Your task to perform on an android device: remove spam from my inbox in the gmail app Image 0: 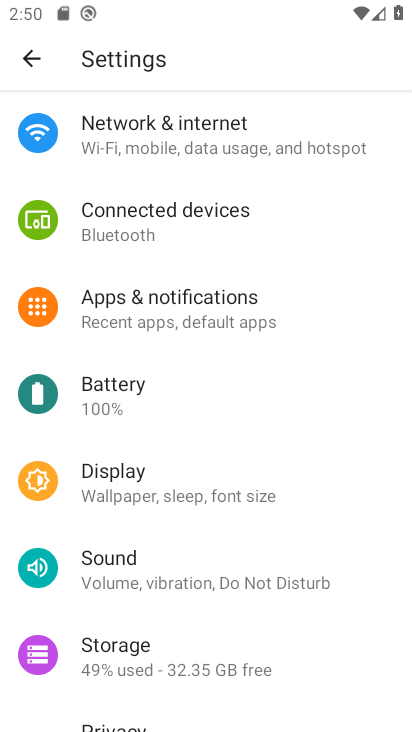
Step 0: press home button
Your task to perform on an android device: remove spam from my inbox in the gmail app Image 1: 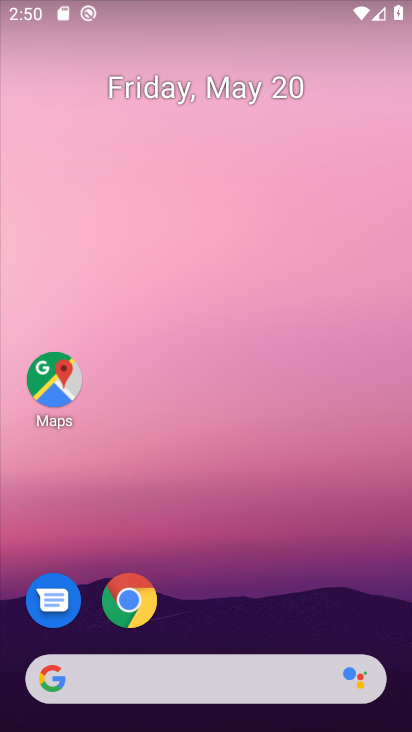
Step 1: drag from (371, 570) to (372, 252)
Your task to perform on an android device: remove spam from my inbox in the gmail app Image 2: 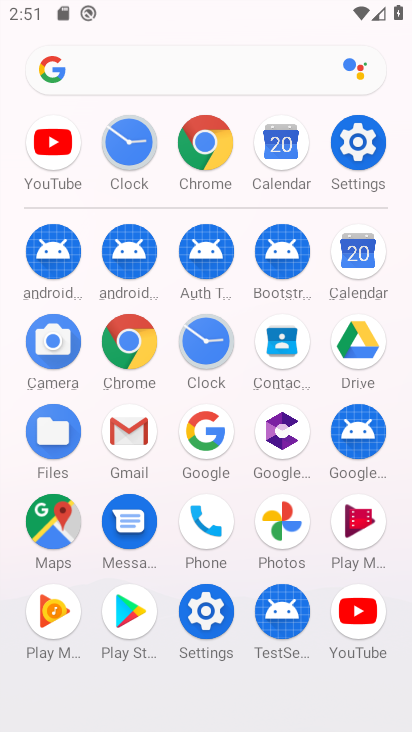
Step 2: click (136, 437)
Your task to perform on an android device: remove spam from my inbox in the gmail app Image 3: 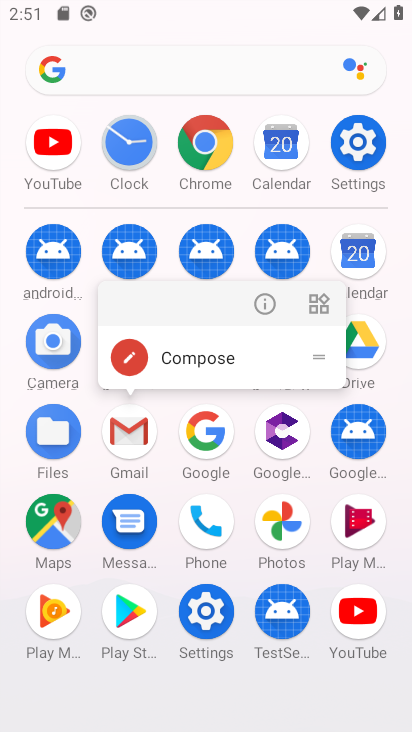
Step 3: click (136, 437)
Your task to perform on an android device: remove spam from my inbox in the gmail app Image 4: 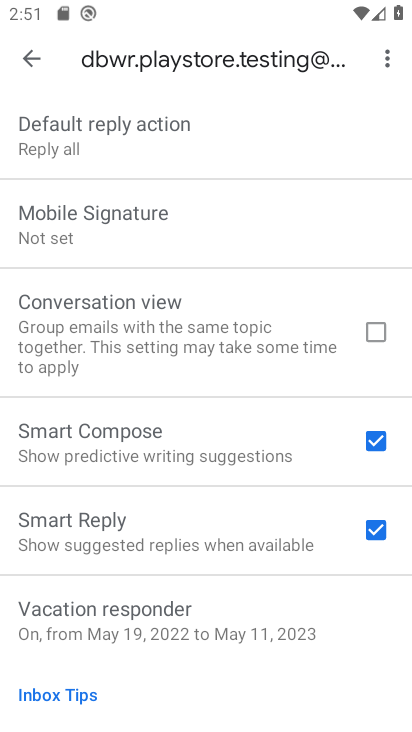
Step 4: drag from (273, 233) to (267, 349)
Your task to perform on an android device: remove spam from my inbox in the gmail app Image 5: 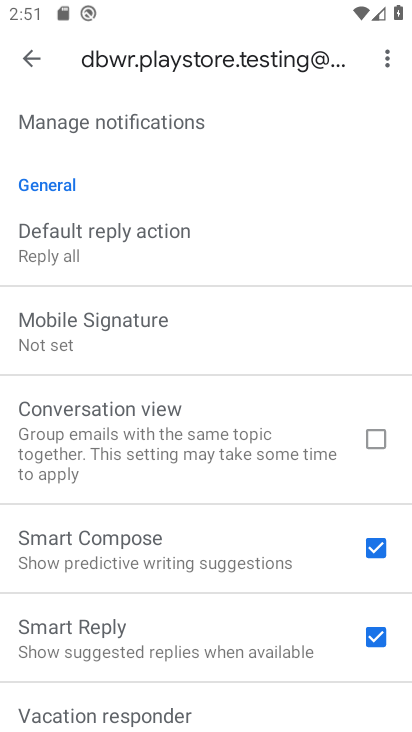
Step 5: drag from (271, 248) to (268, 338)
Your task to perform on an android device: remove spam from my inbox in the gmail app Image 6: 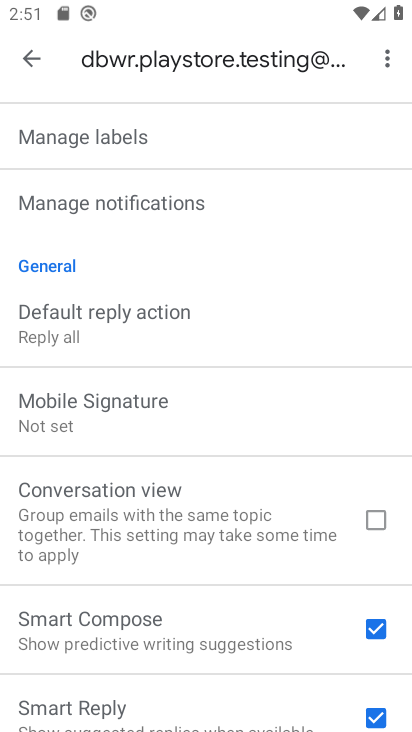
Step 6: drag from (279, 245) to (272, 350)
Your task to perform on an android device: remove spam from my inbox in the gmail app Image 7: 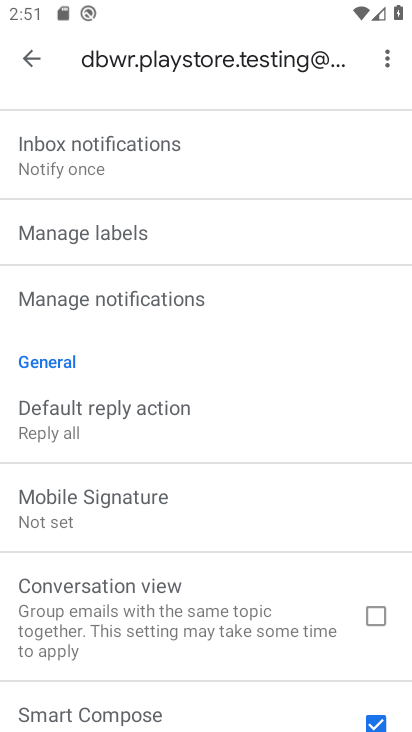
Step 7: drag from (270, 221) to (268, 300)
Your task to perform on an android device: remove spam from my inbox in the gmail app Image 8: 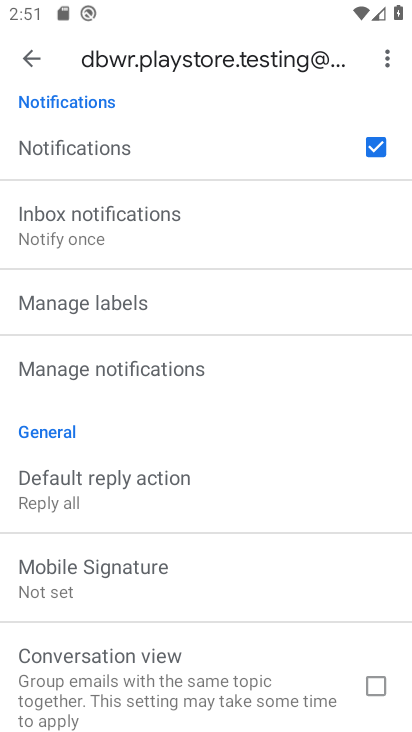
Step 8: drag from (275, 203) to (270, 293)
Your task to perform on an android device: remove spam from my inbox in the gmail app Image 9: 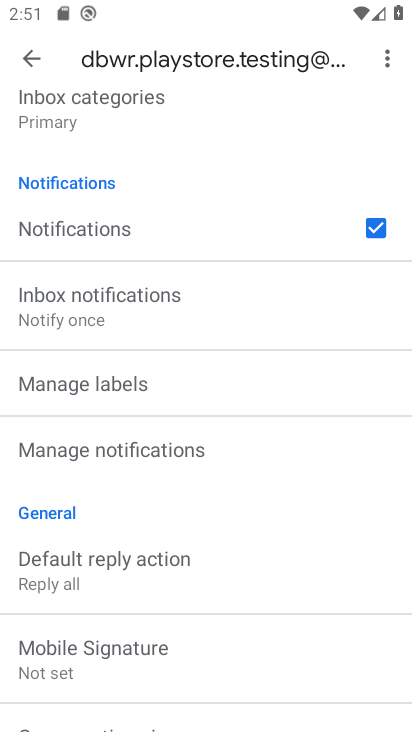
Step 9: drag from (262, 202) to (258, 301)
Your task to perform on an android device: remove spam from my inbox in the gmail app Image 10: 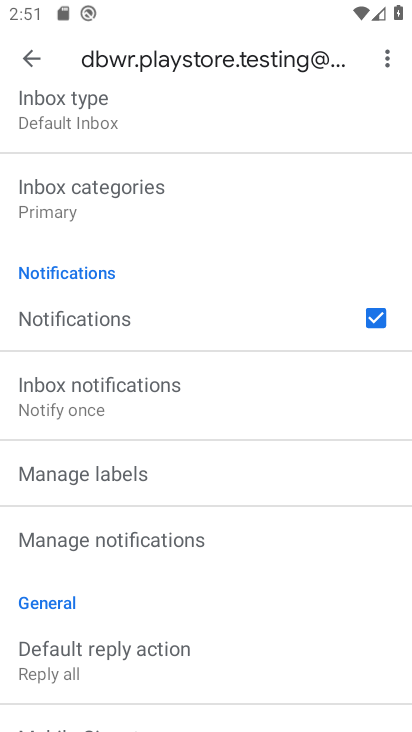
Step 10: drag from (258, 246) to (256, 330)
Your task to perform on an android device: remove spam from my inbox in the gmail app Image 11: 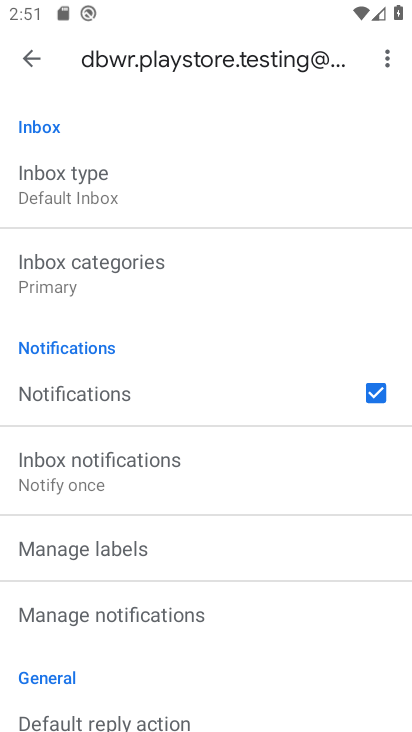
Step 11: click (58, 85)
Your task to perform on an android device: remove spam from my inbox in the gmail app Image 12: 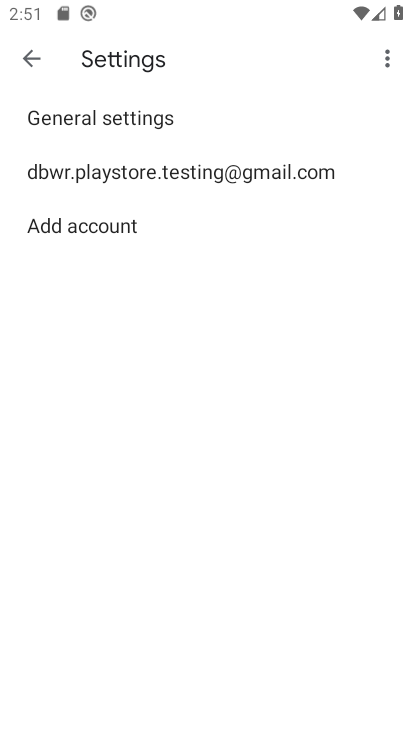
Step 12: click (47, 70)
Your task to perform on an android device: remove spam from my inbox in the gmail app Image 13: 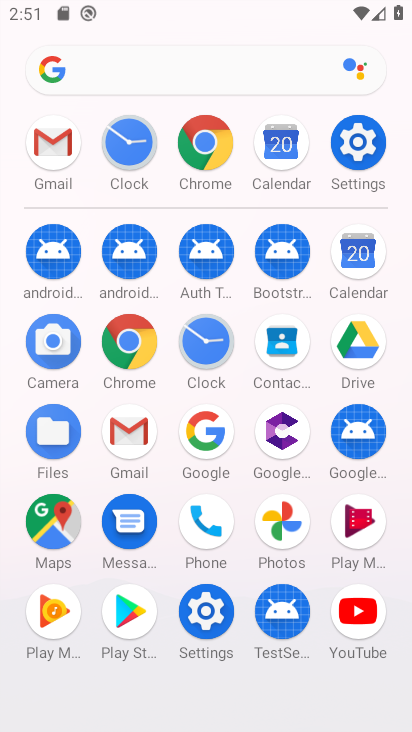
Step 13: click (123, 443)
Your task to perform on an android device: remove spam from my inbox in the gmail app Image 14: 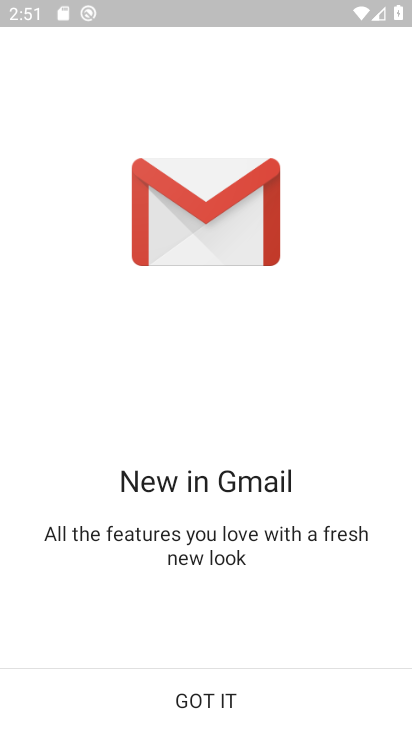
Step 14: click (223, 701)
Your task to perform on an android device: remove spam from my inbox in the gmail app Image 15: 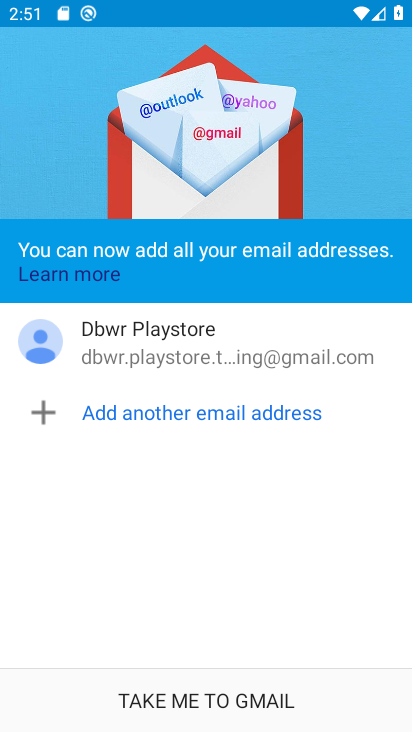
Step 15: click (224, 701)
Your task to perform on an android device: remove spam from my inbox in the gmail app Image 16: 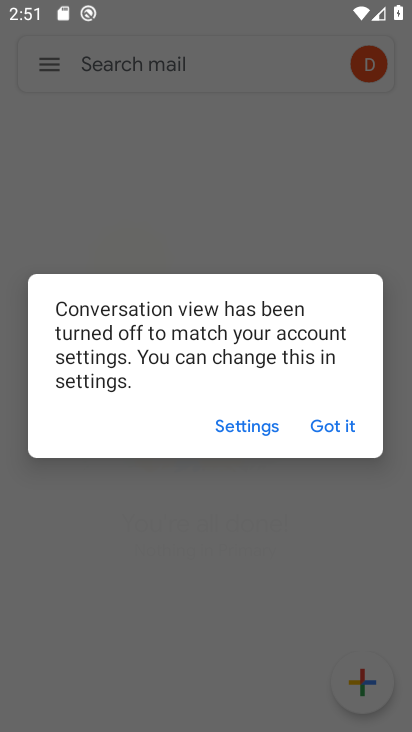
Step 16: click (326, 417)
Your task to perform on an android device: remove spam from my inbox in the gmail app Image 17: 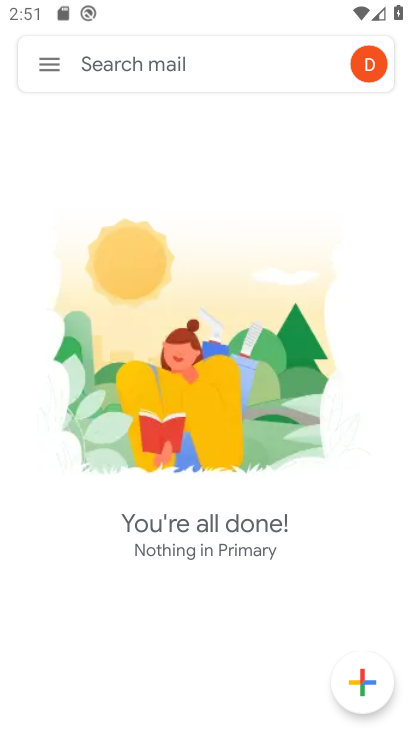
Step 17: click (43, 72)
Your task to perform on an android device: remove spam from my inbox in the gmail app Image 18: 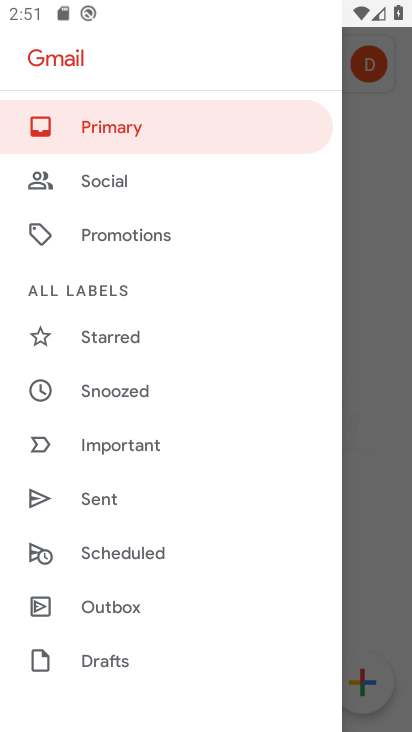
Step 18: drag from (274, 535) to (273, 421)
Your task to perform on an android device: remove spam from my inbox in the gmail app Image 19: 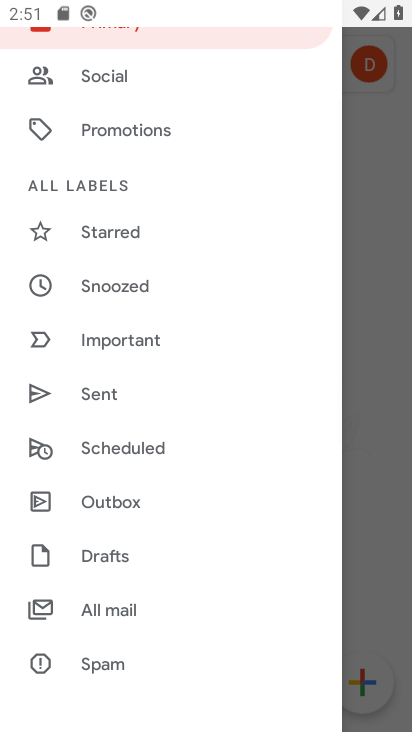
Step 19: drag from (273, 578) to (266, 474)
Your task to perform on an android device: remove spam from my inbox in the gmail app Image 20: 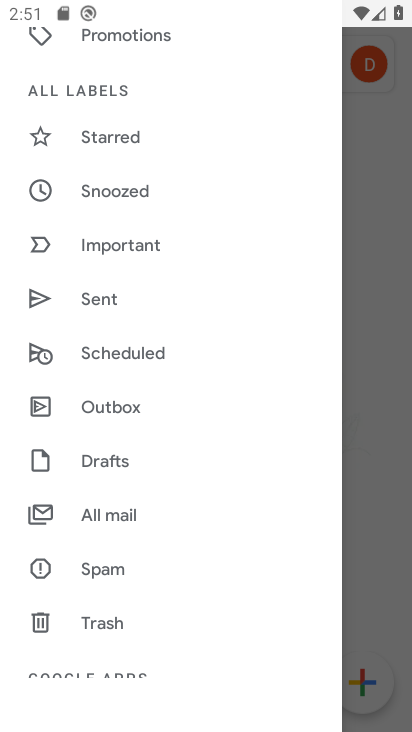
Step 20: drag from (257, 597) to (252, 490)
Your task to perform on an android device: remove spam from my inbox in the gmail app Image 21: 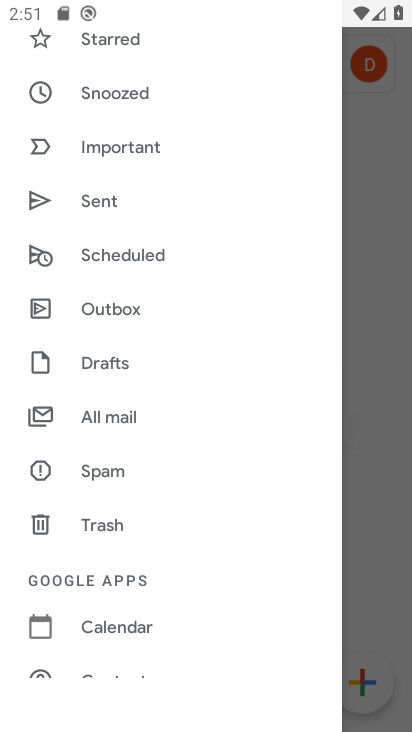
Step 21: drag from (252, 611) to (249, 495)
Your task to perform on an android device: remove spam from my inbox in the gmail app Image 22: 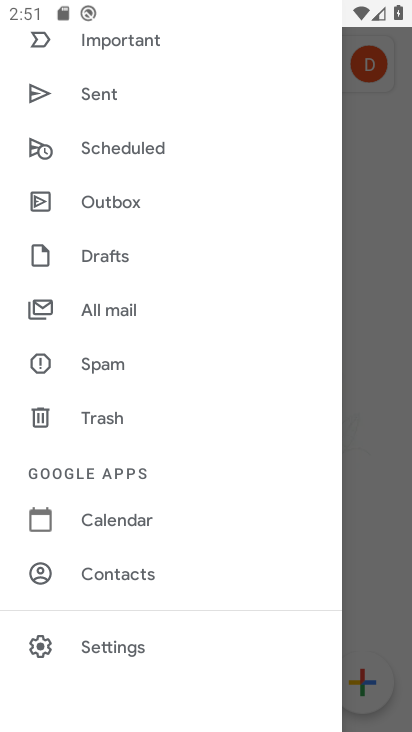
Step 22: drag from (250, 611) to (248, 505)
Your task to perform on an android device: remove spam from my inbox in the gmail app Image 23: 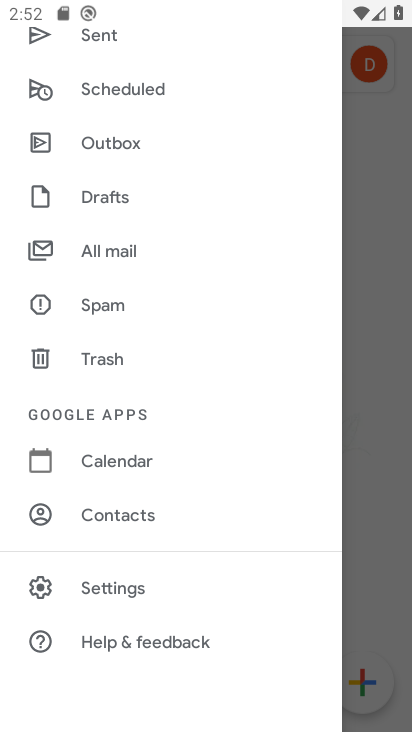
Step 23: drag from (247, 635) to (243, 549)
Your task to perform on an android device: remove spam from my inbox in the gmail app Image 24: 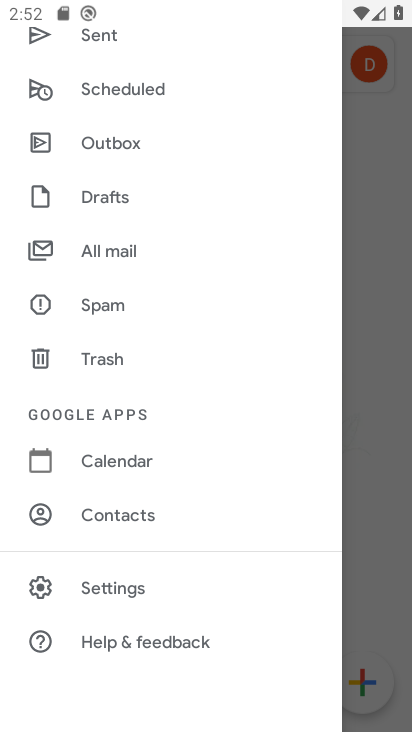
Step 24: click (128, 315)
Your task to perform on an android device: remove spam from my inbox in the gmail app Image 25: 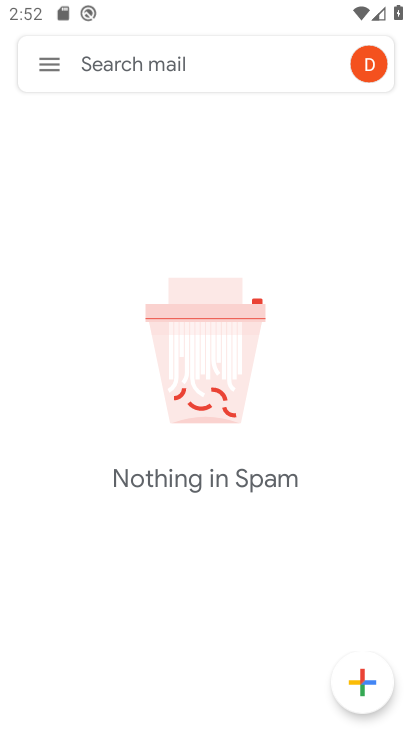
Step 25: task complete